Your task to perform on an android device: Open Reddit.com Image 0: 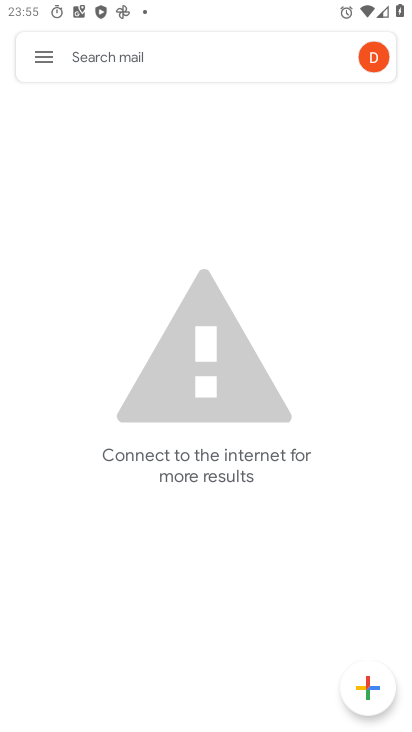
Step 0: press home button
Your task to perform on an android device: Open Reddit.com Image 1: 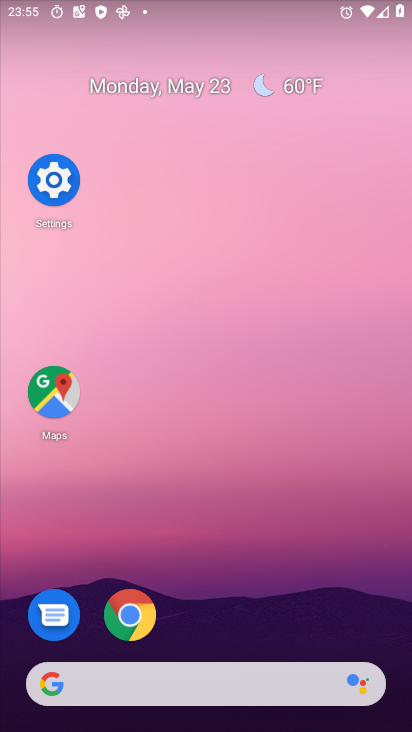
Step 1: drag from (322, 368) to (357, 30)
Your task to perform on an android device: Open Reddit.com Image 2: 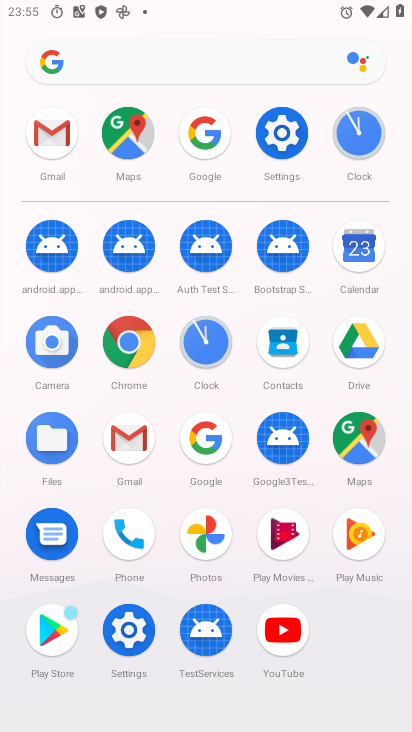
Step 2: click (204, 113)
Your task to perform on an android device: Open Reddit.com Image 3: 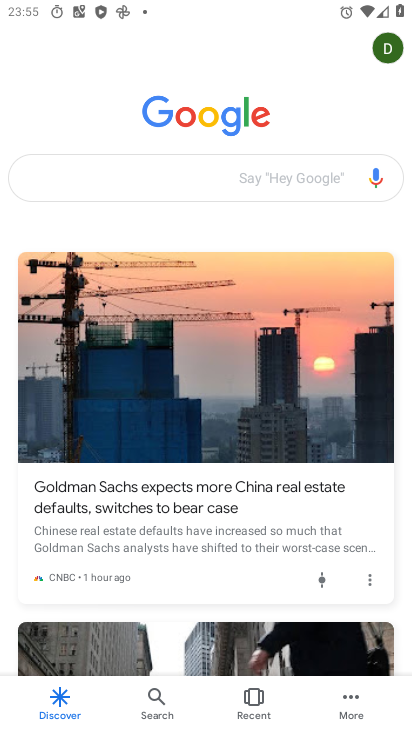
Step 3: click (217, 181)
Your task to perform on an android device: Open Reddit.com Image 4: 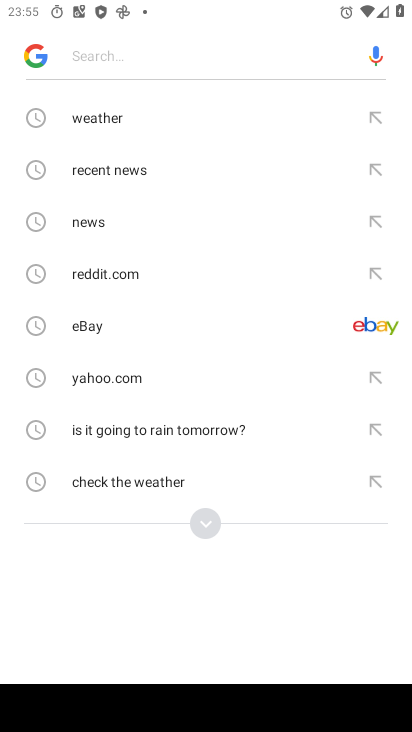
Step 4: click (138, 272)
Your task to perform on an android device: Open Reddit.com Image 5: 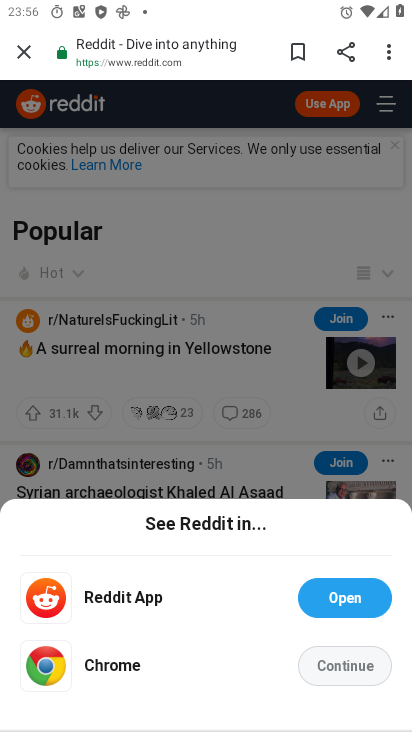
Step 5: task complete